Your task to perform on an android device: delete the emails in spam in the gmail app Image 0: 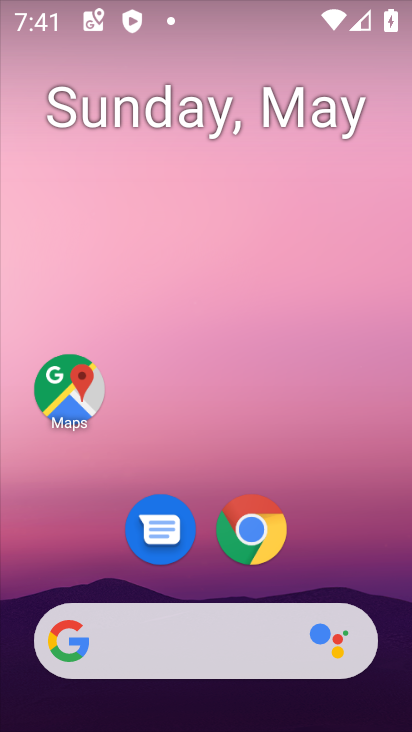
Step 0: drag from (339, 577) to (338, 1)
Your task to perform on an android device: delete the emails in spam in the gmail app Image 1: 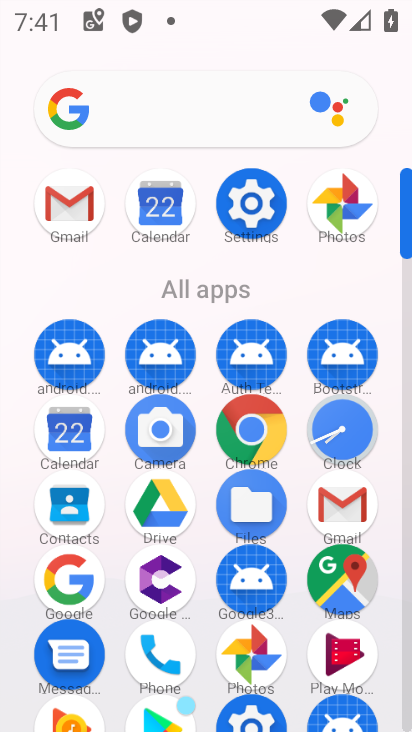
Step 1: click (74, 221)
Your task to perform on an android device: delete the emails in spam in the gmail app Image 2: 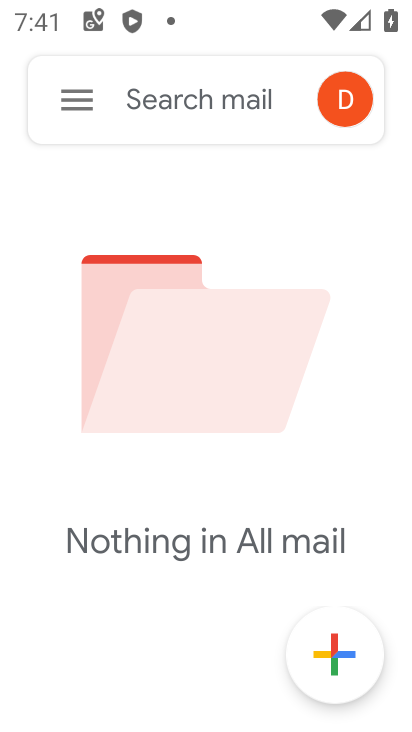
Step 2: click (63, 104)
Your task to perform on an android device: delete the emails in spam in the gmail app Image 3: 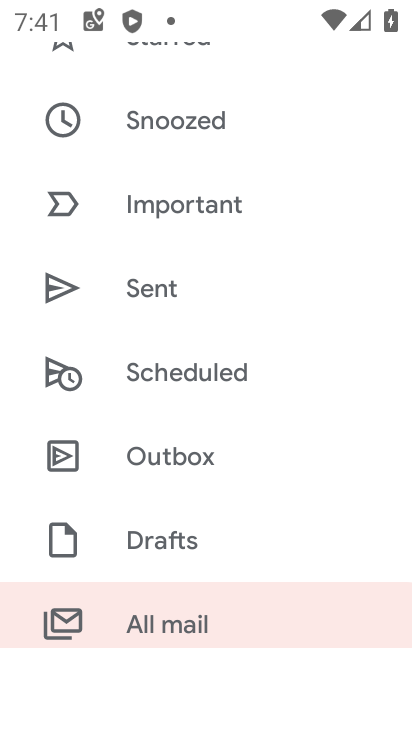
Step 3: drag from (268, 605) to (269, 161)
Your task to perform on an android device: delete the emails in spam in the gmail app Image 4: 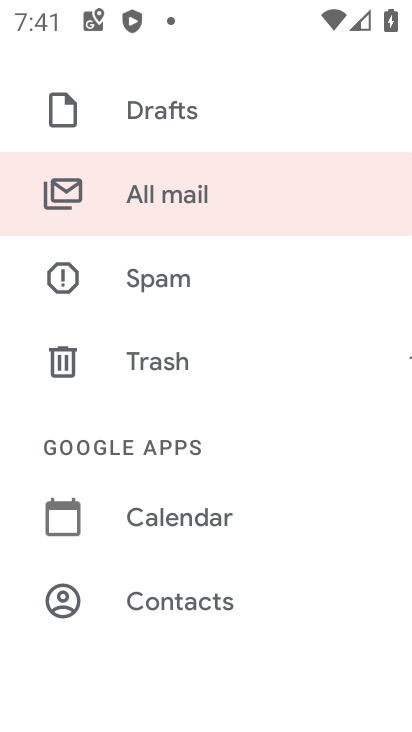
Step 4: click (144, 288)
Your task to perform on an android device: delete the emails in spam in the gmail app Image 5: 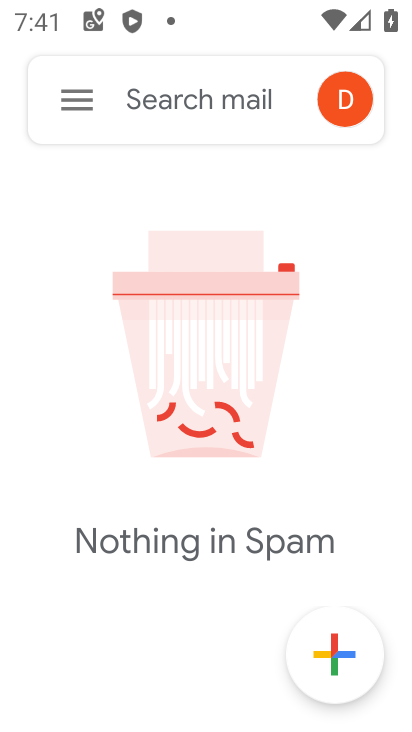
Step 5: task complete